Your task to perform on an android device: Open the map Image 0: 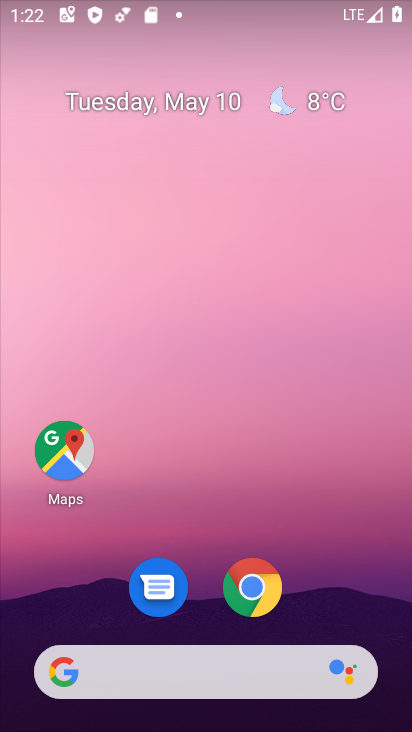
Step 0: click (63, 451)
Your task to perform on an android device: Open the map Image 1: 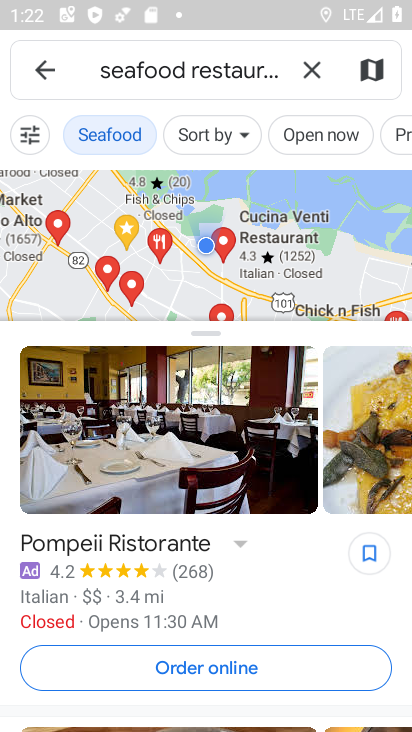
Step 1: task complete